Your task to perform on an android device: set the timer Image 0: 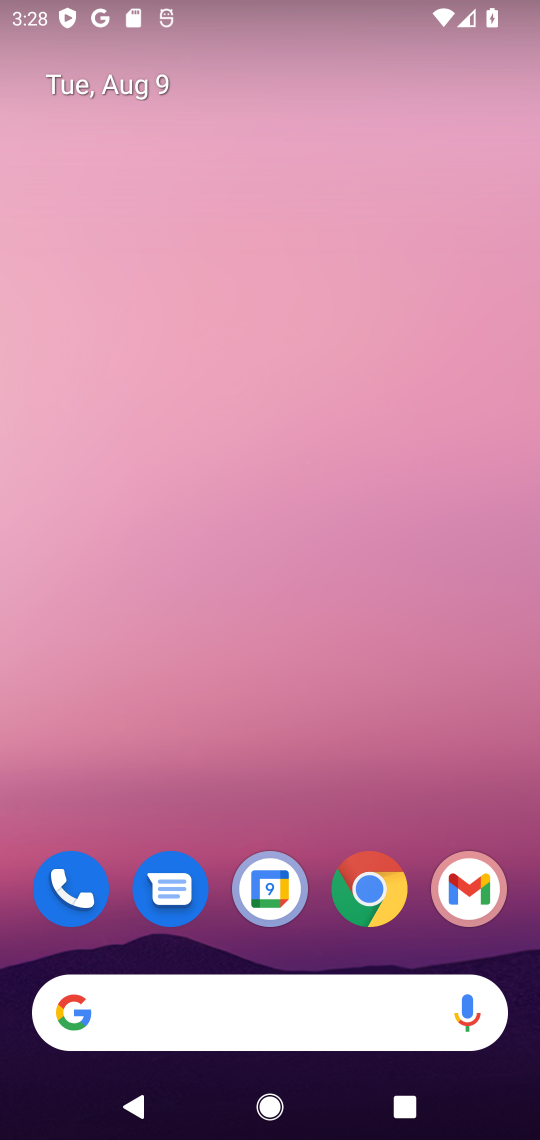
Step 0: drag from (316, 773) to (377, 2)
Your task to perform on an android device: set the timer Image 1: 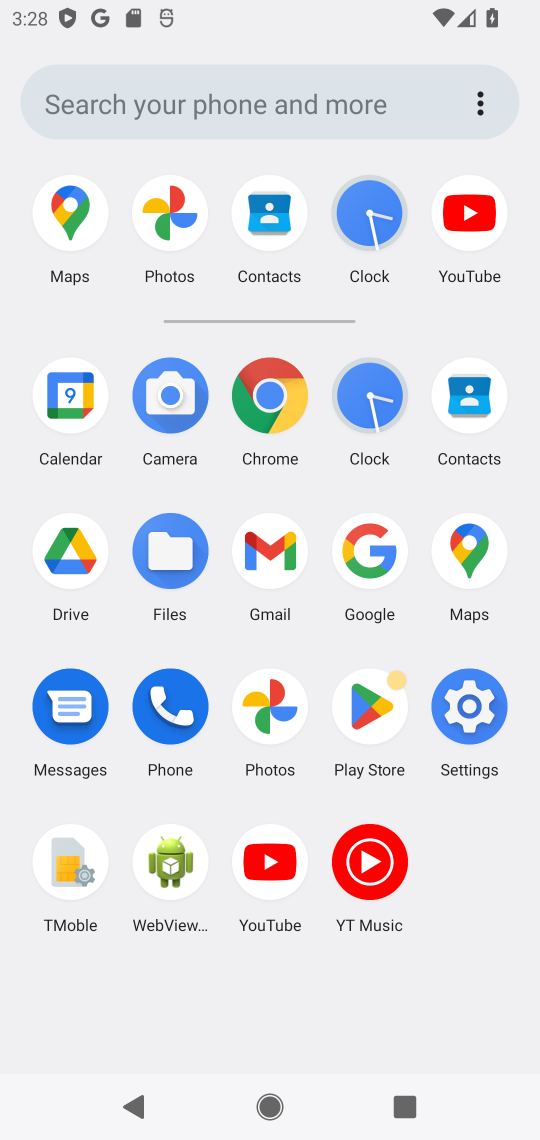
Step 1: click (376, 206)
Your task to perform on an android device: set the timer Image 2: 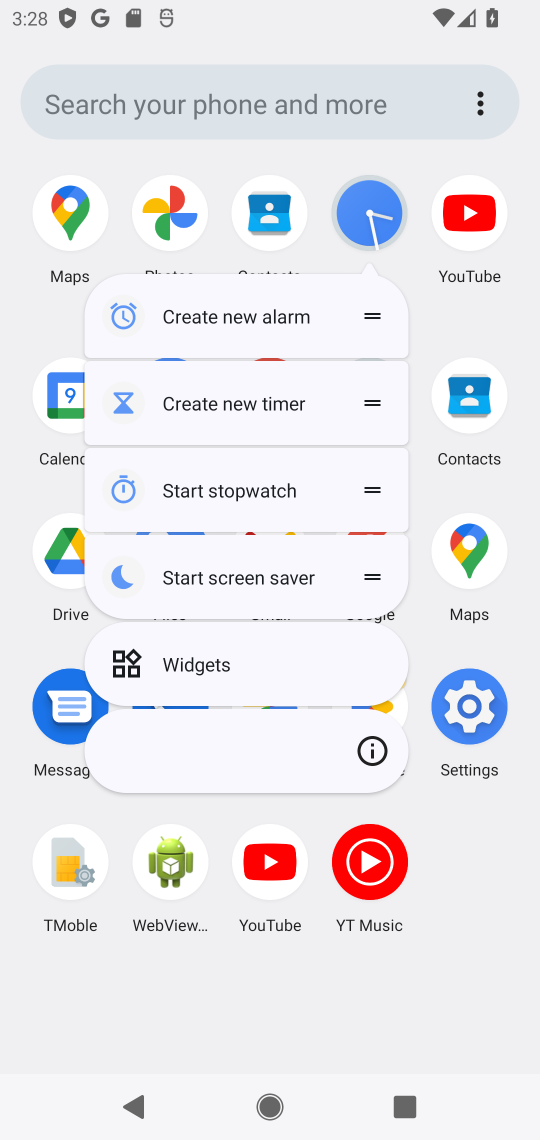
Step 2: click (377, 210)
Your task to perform on an android device: set the timer Image 3: 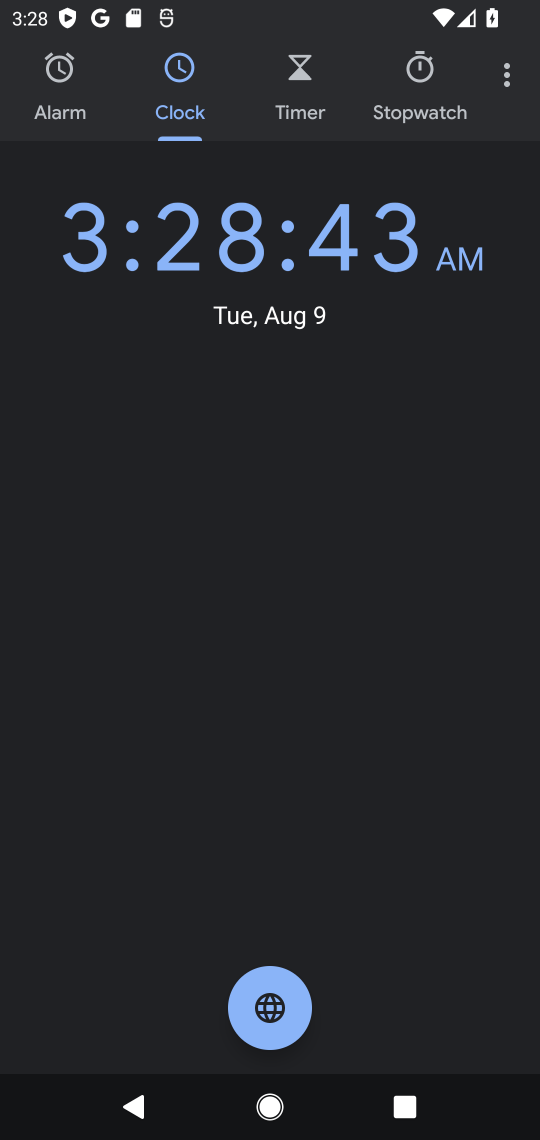
Step 3: click (313, 80)
Your task to perform on an android device: set the timer Image 4: 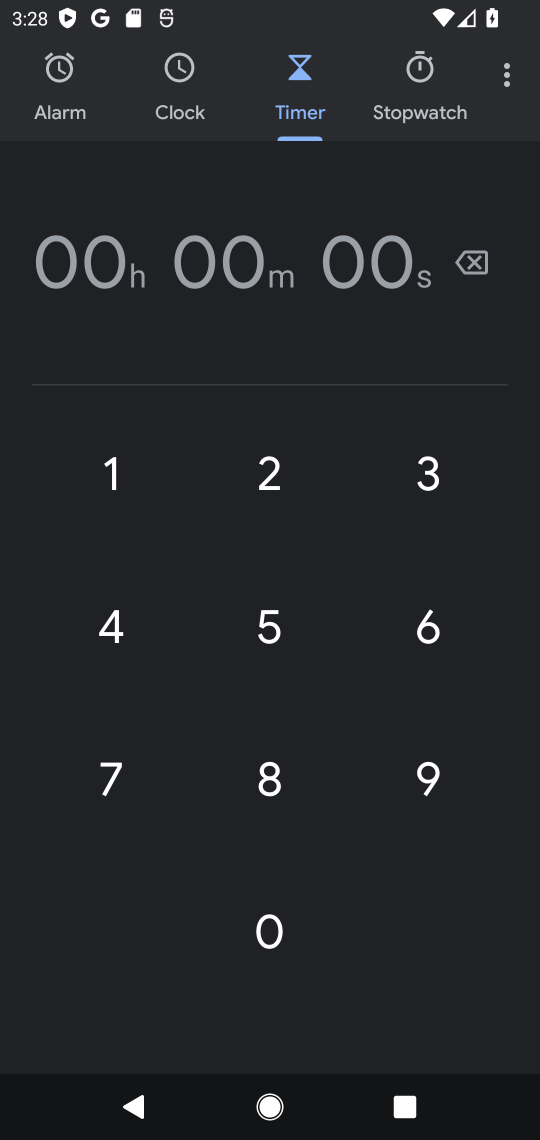
Step 4: task complete